Your task to perform on an android device: Open Android settings Image 0: 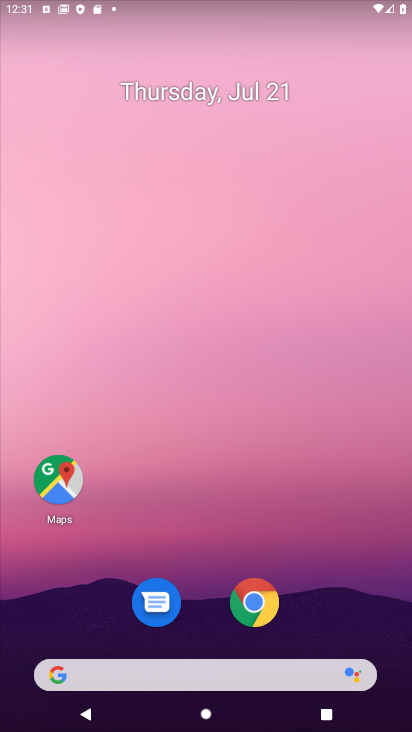
Step 0: drag from (364, 562) to (255, 44)
Your task to perform on an android device: Open Android settings Image 1: 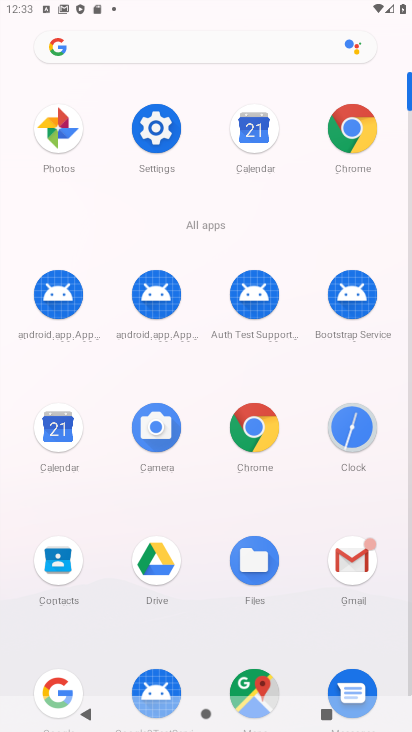
Step 1: drag from (187, 605) to (164, 116)
Your task to perform on an android device: Open Android settings Image 2: 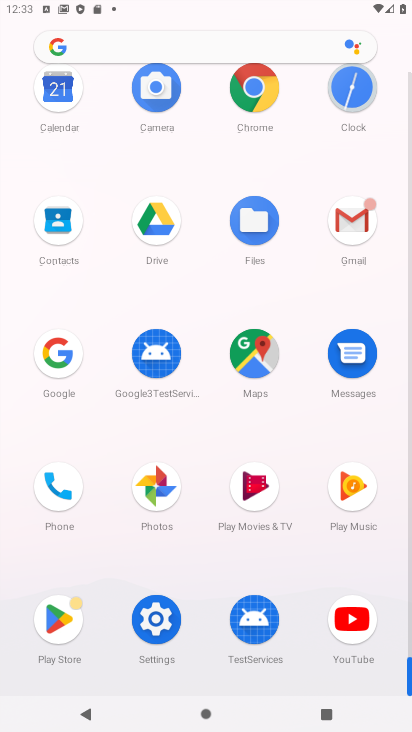
Step 2: click (149, 616)
Your task to perform on an android device: Open Android settings Image 3: 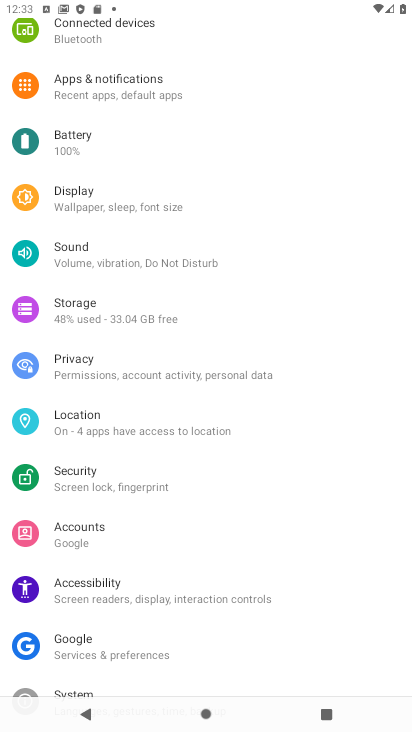
Step 3: task complete